Your task to perform on an android device: turn on airplane mode Image 0: 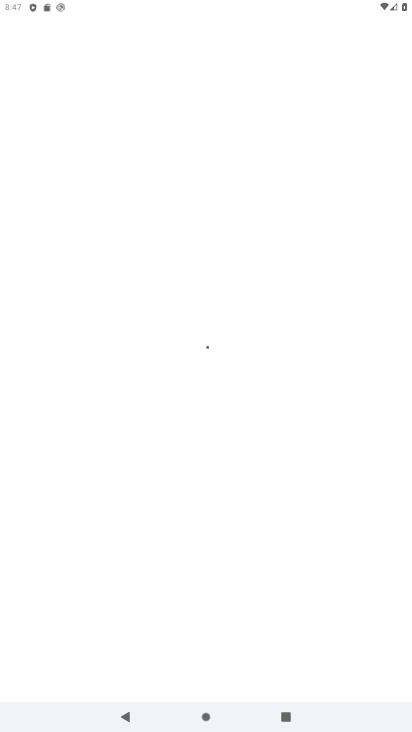
Step 0: press home button
Your task to perform on an android device: turn on airplane mode Image 1: 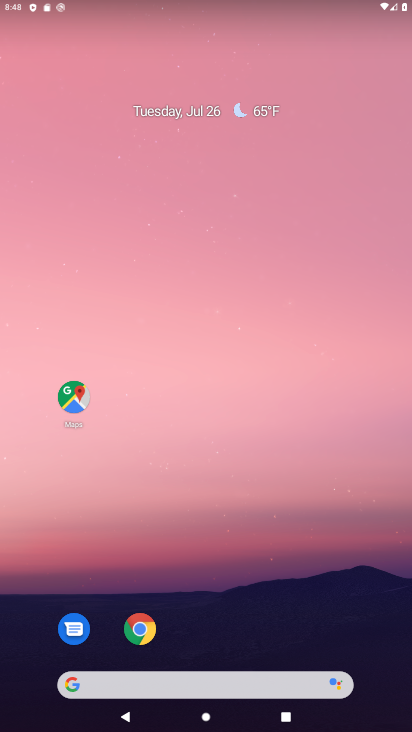
Step 1: drag from (302, 629) to (304, 0)
Your task to perform on an android device: turn on airplane mode Image 2: 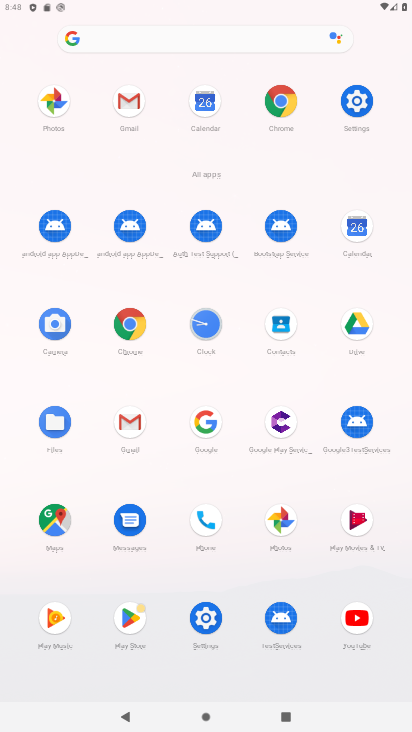
Step 2: click (350, 93)
Your task to perform on an android device: turn on airplane mode Image 3: 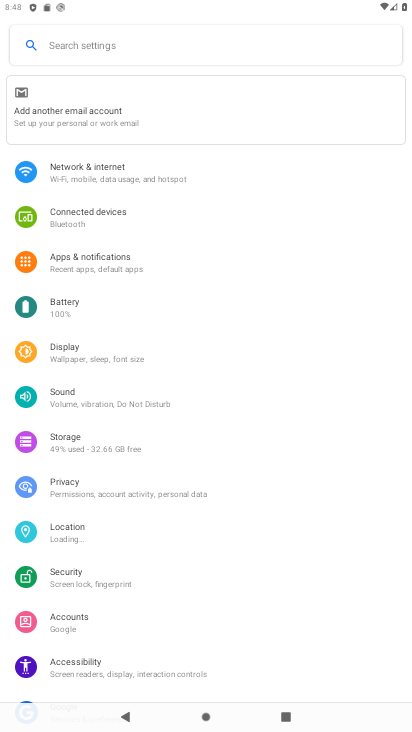
Step 3: click (135, 174)
Your task to perform on an android device: turn on airplane mode Image 4: 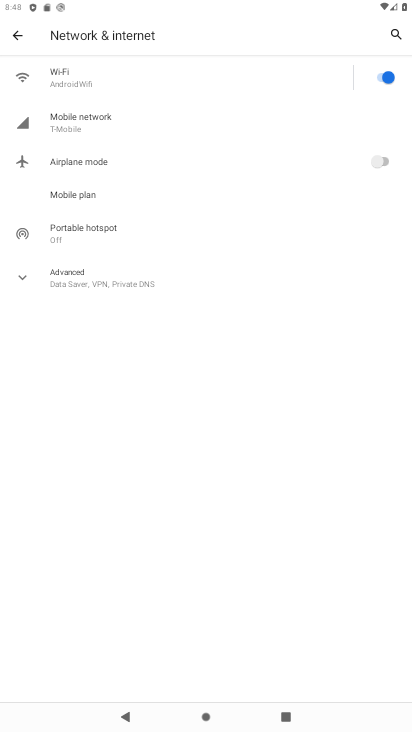
Step 4: click (386, 153)
Your task to perform on an android device: turn on airplane mode Image 5: 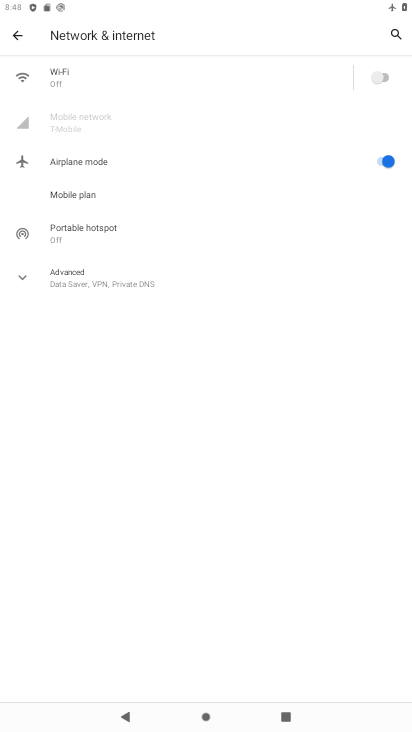
Step 5: task complete